Your task to perform on an android device: Open Youtube and go to "Your channel" Image 0: 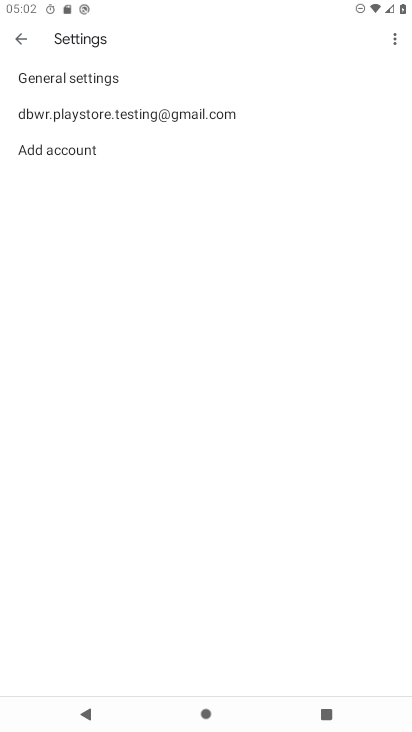
Step 0: press home button
Your task to perform on an android device: Open Youtube and go to "Your channel" Image 1: 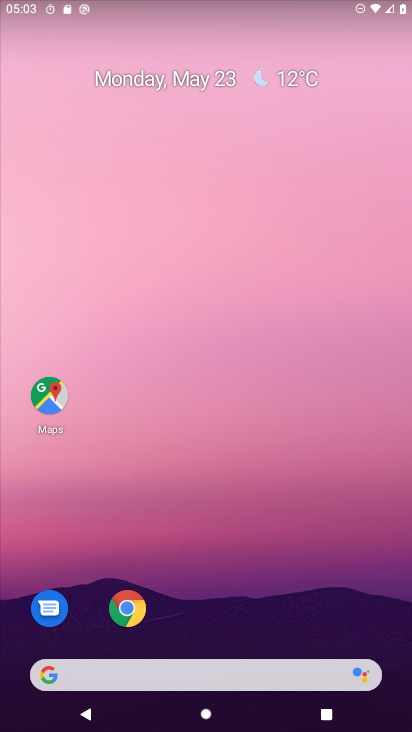
Step 1: drag from (302, 585) to (186, 33)
Your task to perform on an android device: Open Youtube and go to "Your channel" Image 2: 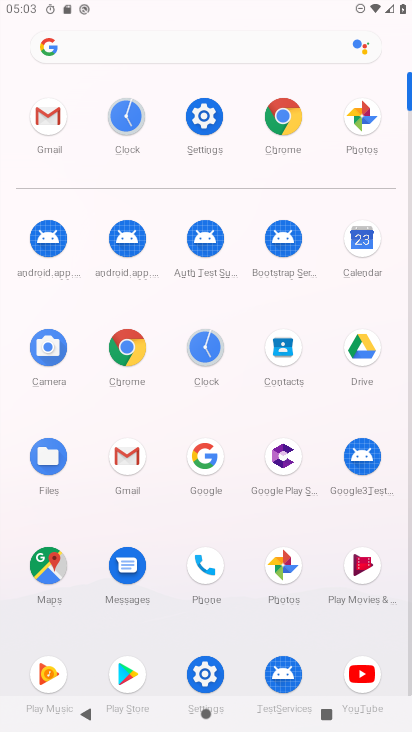
Step 2: click (360, 669)
Your task to perform on an android device: Open Youtube and go to "Your channel" Image 3: 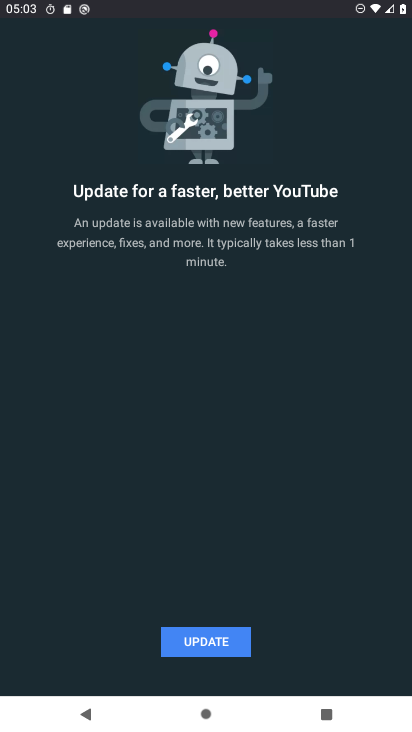
Step 3: click (235, 646)
Your task to perform on an android device: Open Youtube and go to "Your channel" Image 4: 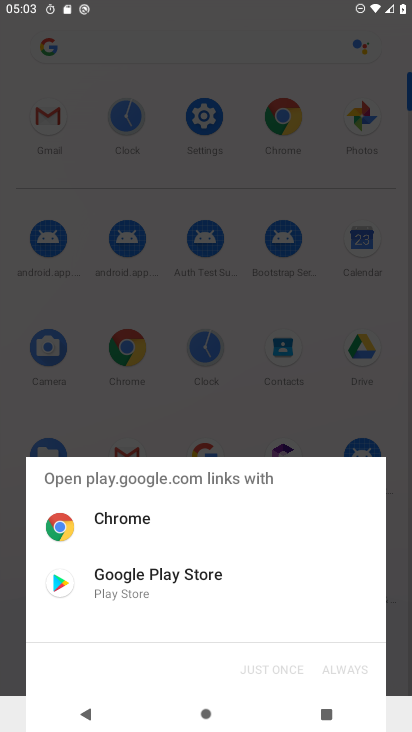
Step 4: click (194, 579)
Your task to perform on an android device: Open Youtube and go to "Your channel" Image 5: 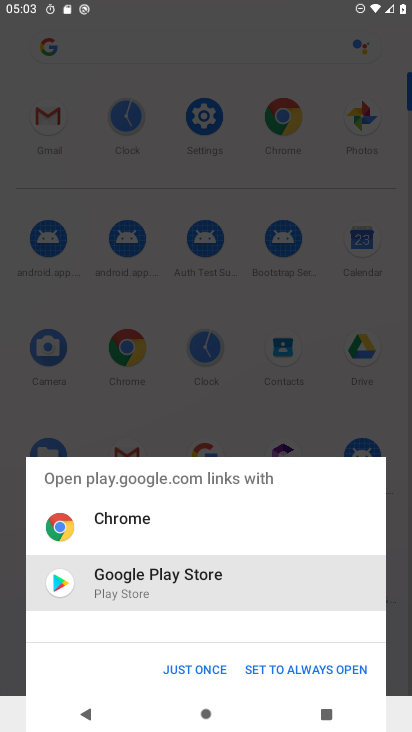
Step 5: click (157, 669)
Your task to perform on an android device: Open Youtube and go to "Your channel" Image 6: 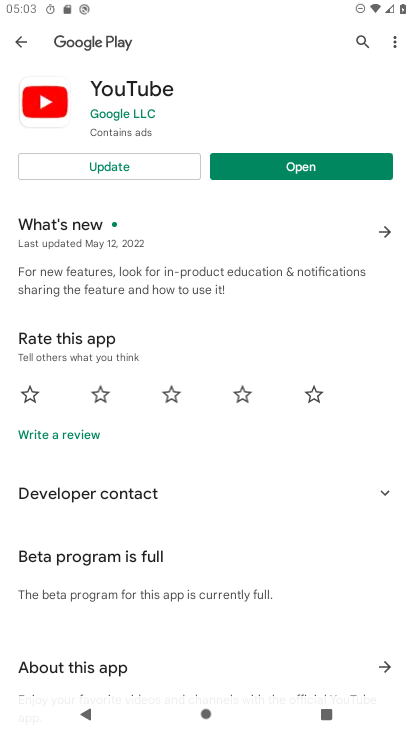
Step 6: click (143, 162)
Your task to perform on an android device: Open Youtube and go to "Your channel" Image 7: 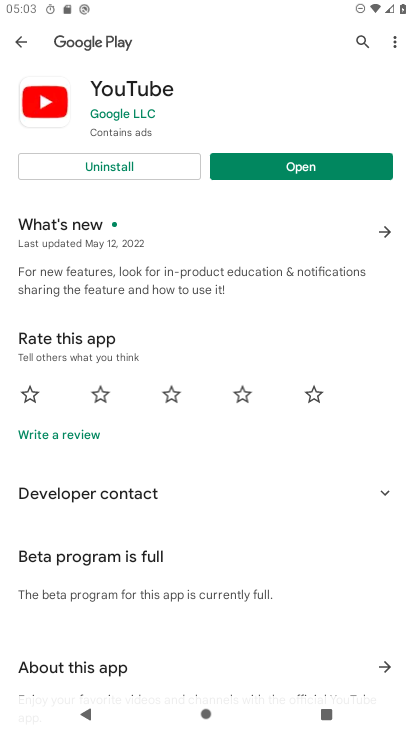
Step 7: click (326, 166)
Your task to perform on an android device: Open Youtube and go to "Your channel" Image 8: 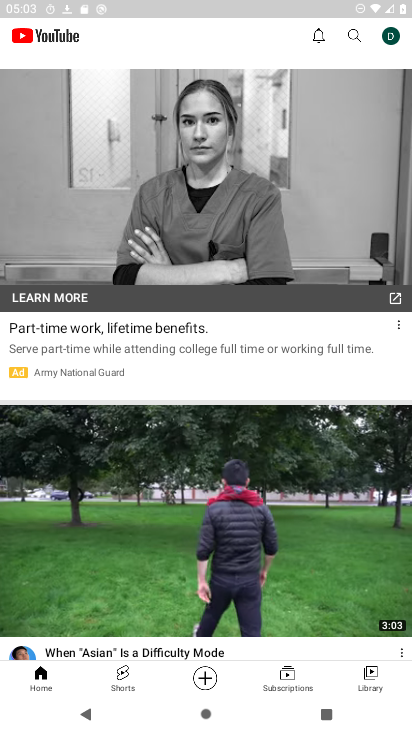
Step 8: click (397, 32)
Your task to perform on an android device: Open Youtube and go to "Your channel" Image 9: 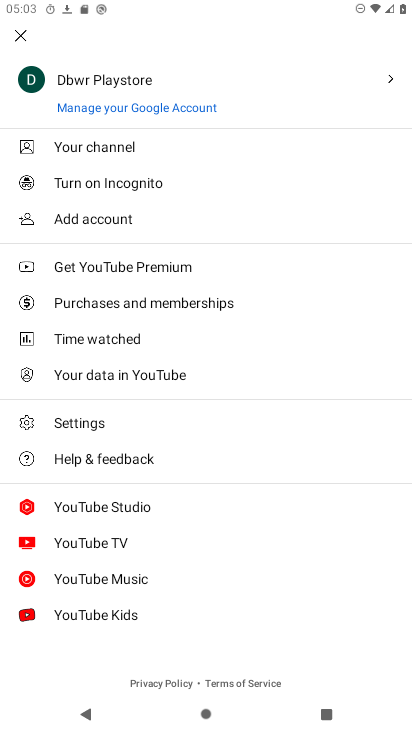
Step 9: click (108, 144)
Your task to perform on an android device: Open Youtube and go to "Your channel" Image 10: 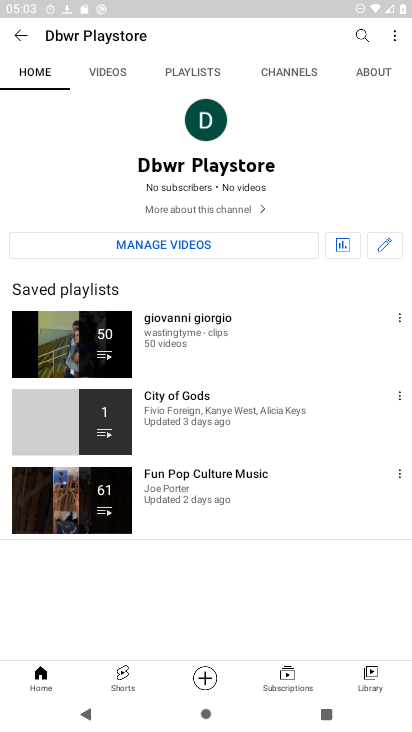
Step 10: task complete